Your task to perform on an android device: remove spam from my inbox in the gmail app Image 0: 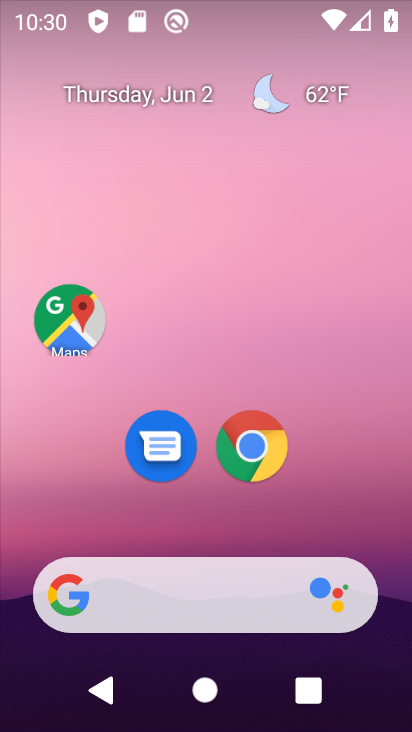
Step 0: drag from (338, 481) to (280, 240)
Your task to perform on an android device: remove spam from my inbox in the gmail app Image 1: 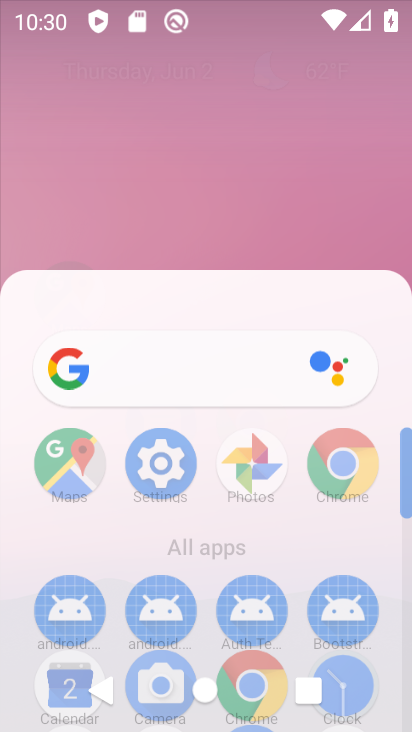
Step 1: click (252, 86)
Your task to perform on an android device: remove spam from my inbox in the gmail app Image 2: 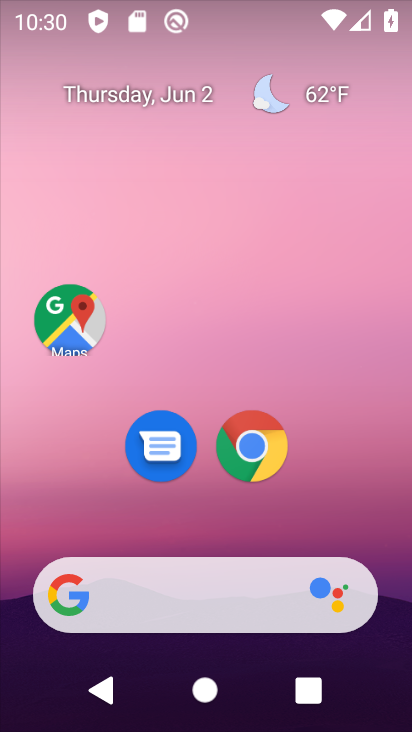
Step 2: drag from (365, 473) to (307, 96)
Your task to perform on an android device: remove spam from my inbox in the gmail app Image 3: 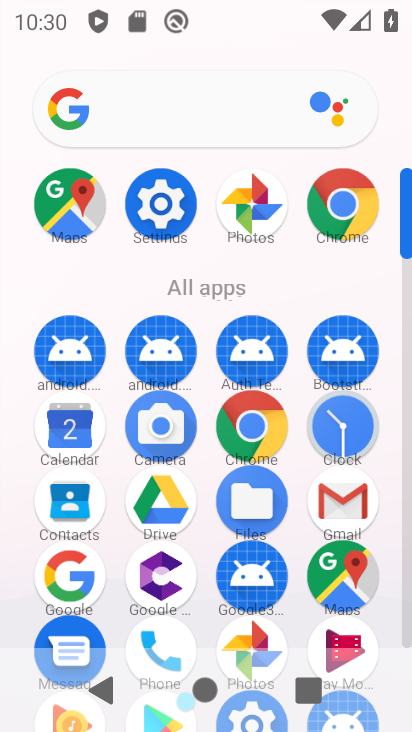
Step 3: click (343, 498)
Your task to perform on an android device: remove spam from my inbox in the gmail app Image 4: 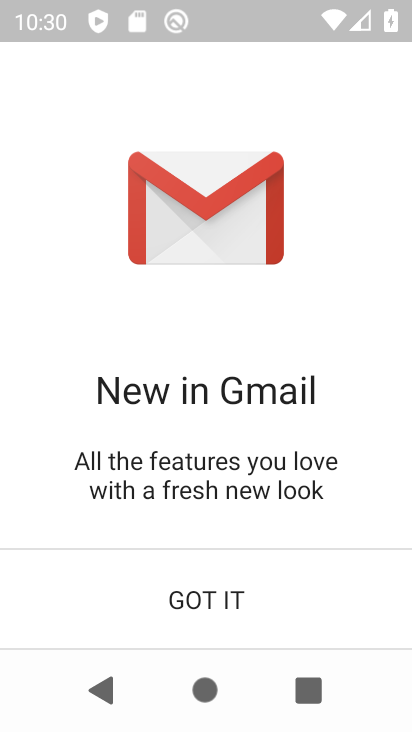
Step 4: click (191, 610)
Your task to perform on an android device: remove spam from my inbox in the gmail app Image 5: 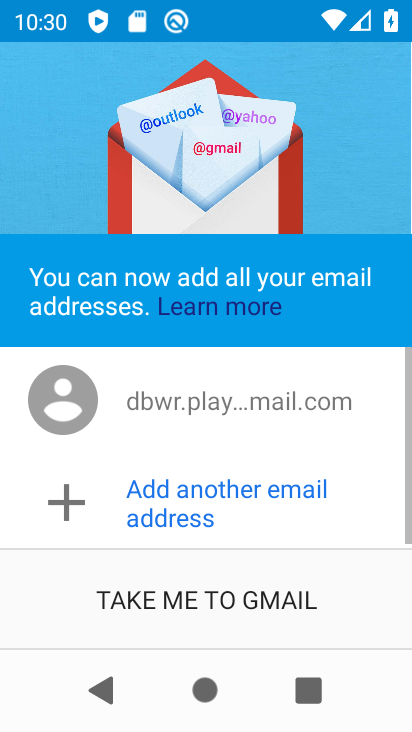
Step 5: click (191, 609)
Your task to perform on an android device: remove spam from my inbox in the gmail app Image 6: 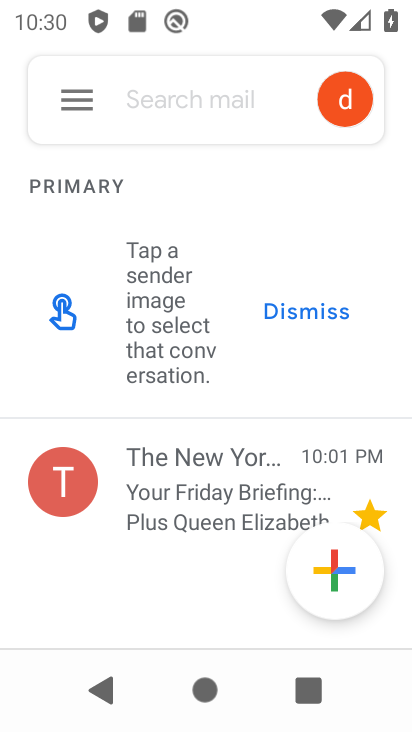
Step 6: click (84, 100)
Your task to perform on an android device: remove spam from my inbox in the gmail app Image 7: 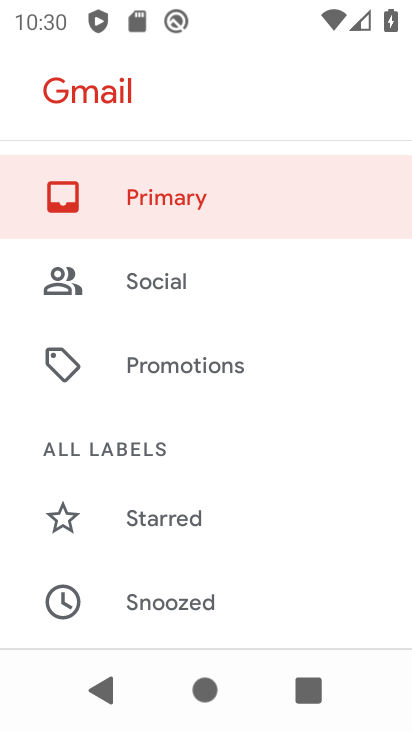
Step 7: click (201, 185)
Your task to perform on an android device: remove spam from my inbox in the gmail app Image 8: 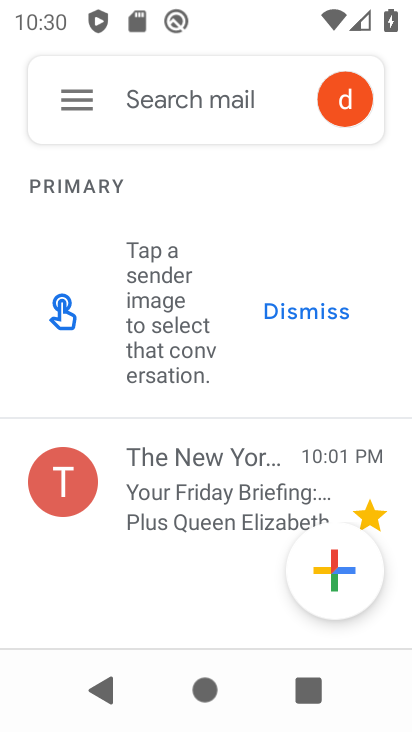
Step 8: task complete